Your task to perform on an android device: toggle priority inbox in the gmail app Image 0: 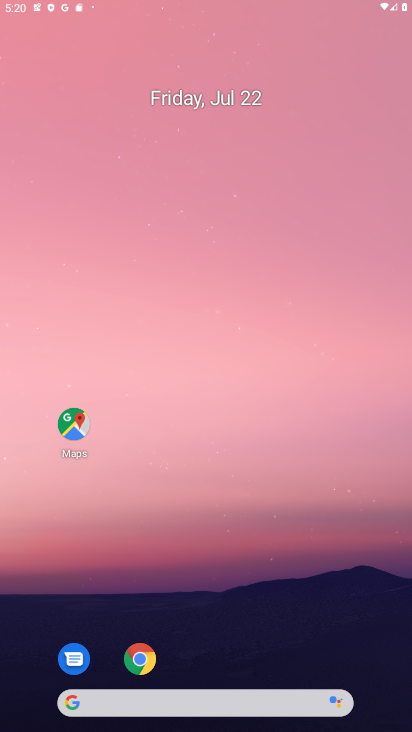
Step 0: press home button
Your task to perform on an android device: toggle priority inbox in the gmail app Image 1: 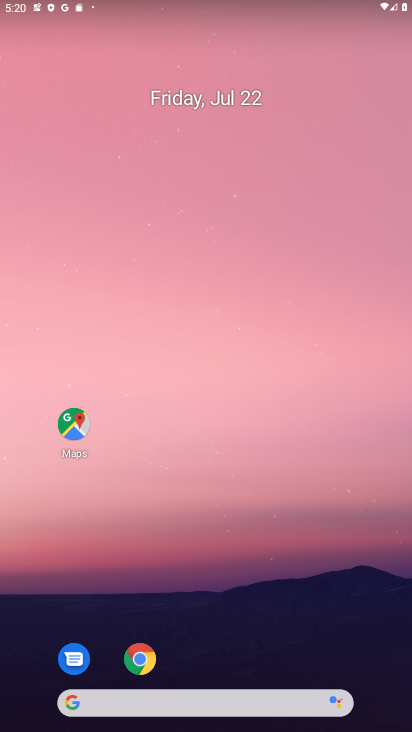
Step 1: drag from (223, 670) to (295, 234)
Your task to perform on an android device: toggle priority inbox in the gmail app Image 2: 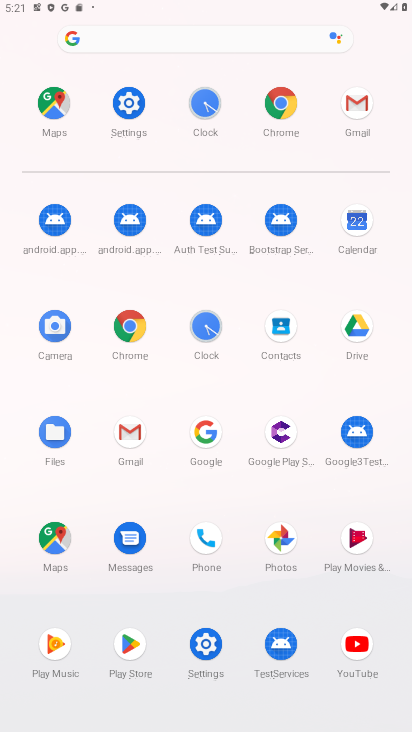
Step 2: click (130, 423)
Your task to perform on an android device: toggle priority inbox in the gmail app Image 3: 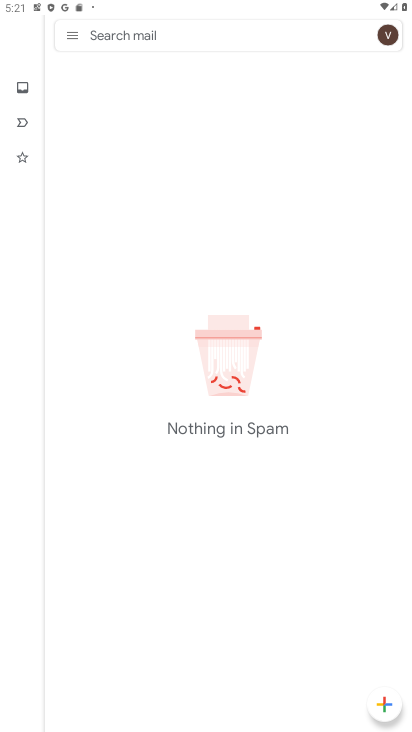
Step 3: click (70, 28)
Your task to perform on an android device: toggle priority inbox in the gmail app Image 4: 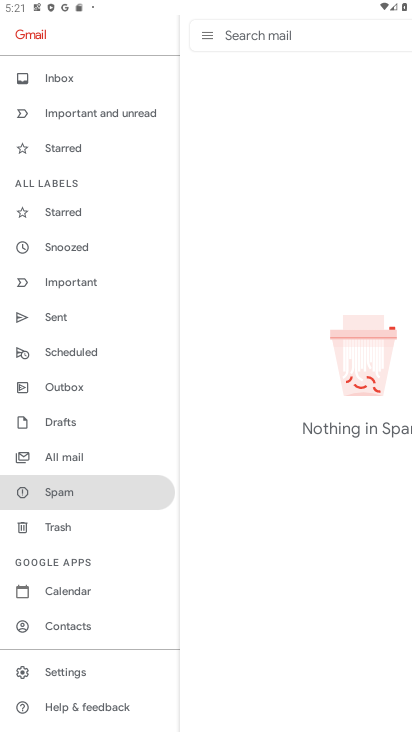
Step 4: click (88, 668)
Your task to perform on an android device: toggle priority inbox in the gmail app Image 5: 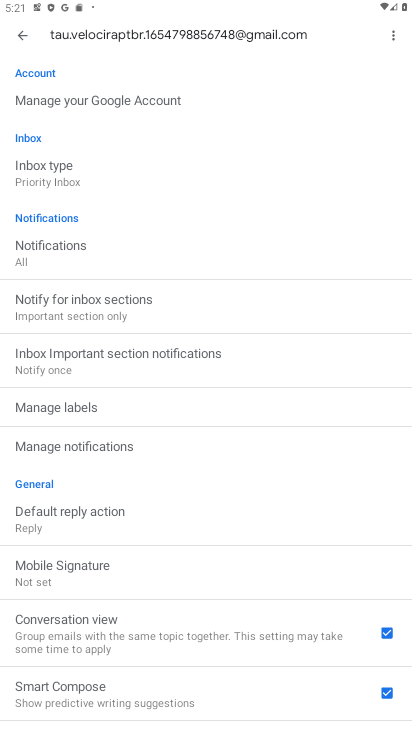
Step 5: click (69, 174)
Your task to perform on an android device: toggle priority inbox in the gmail app Image 6: 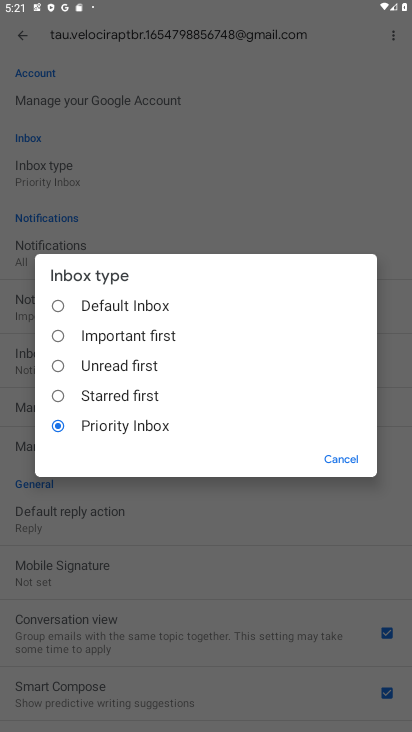
Step 6: task complete